Your task to perform on an android device: Clear all items from cart on walmart. Search for apple airpods on walmart, select the first entry, and add it to the cart. Image 0: 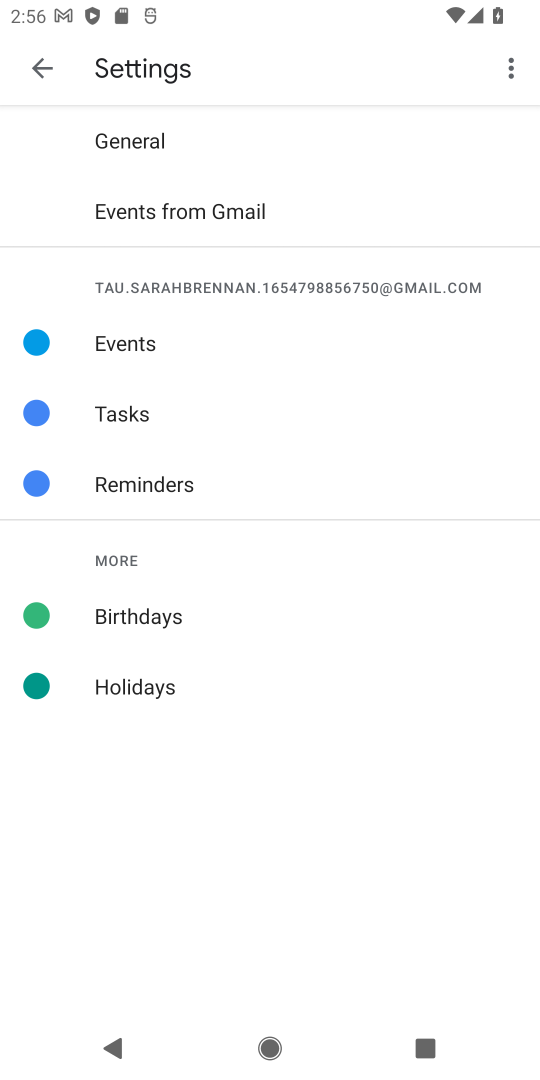
Step 0: press home button
Your task to perform on an android device: Clear all items from cart on walmart. Search for apple airpods on walmart, select the first entry, and add it to the cart. Image 1: 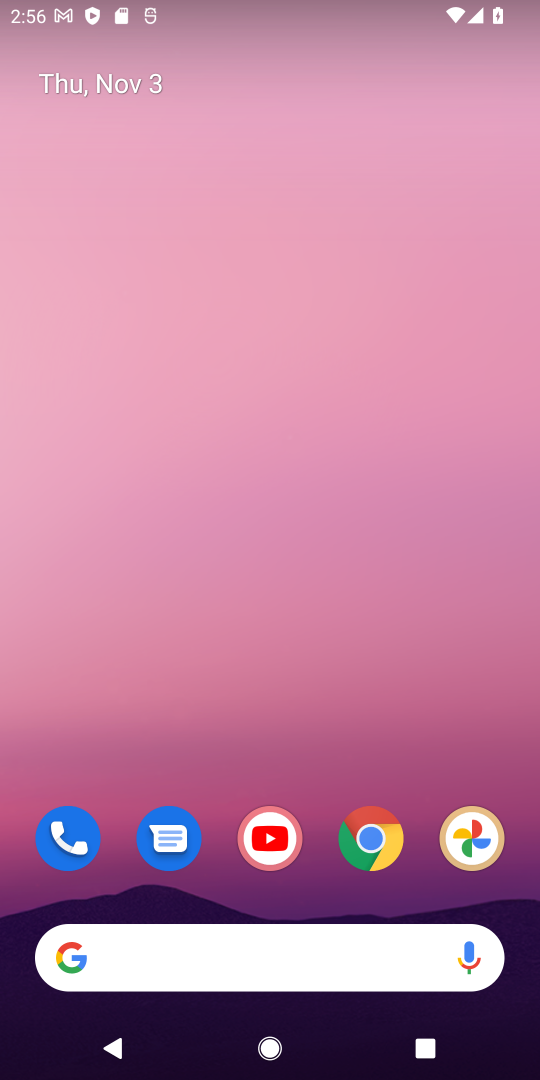
Step 1: drag from (342, 897) to (319, 184)
Your task to perform on an android device: Clear all items from cart on walmart. Search for apple airpods on walmart, select the first entry, and add it to the cart. Image 2: 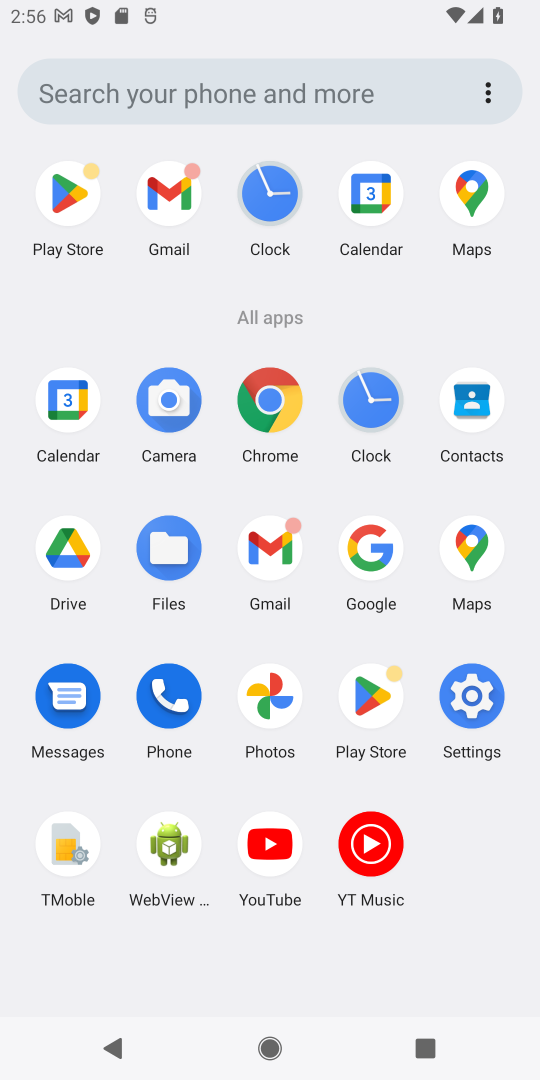
Step 2: click (273, 399)
Your task to perform on an android device: Clear all items from cart on walmart. Search for apple airpods on walmart, select the first entry, and add it to the cart. Image 3: 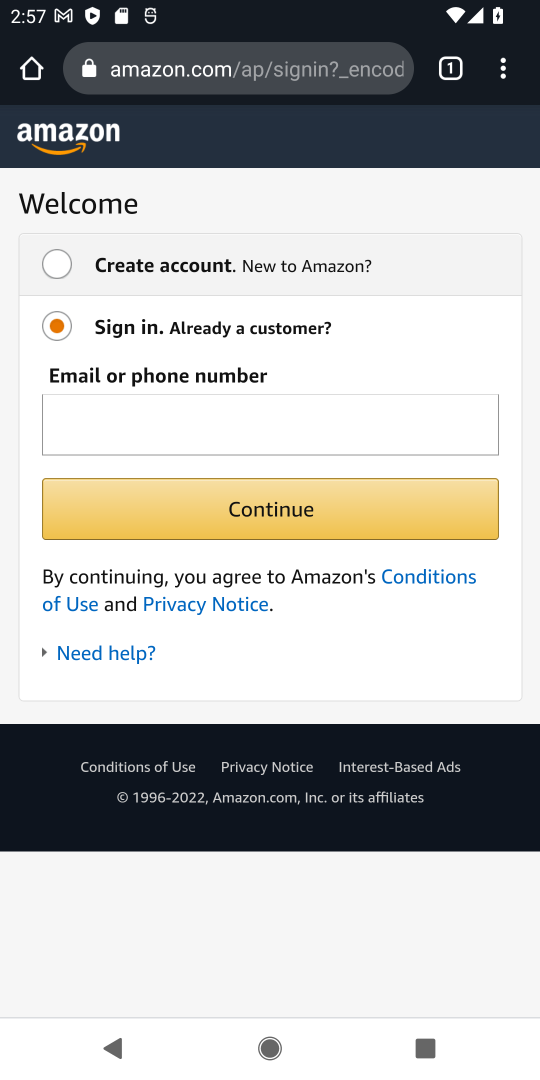
Step 3: click (293, 66)
Your task to perform on an android device: Clear all items from cart on walmart. Search for apple airpods on walmart, select the first entry, and add it to the cart. Image 4: 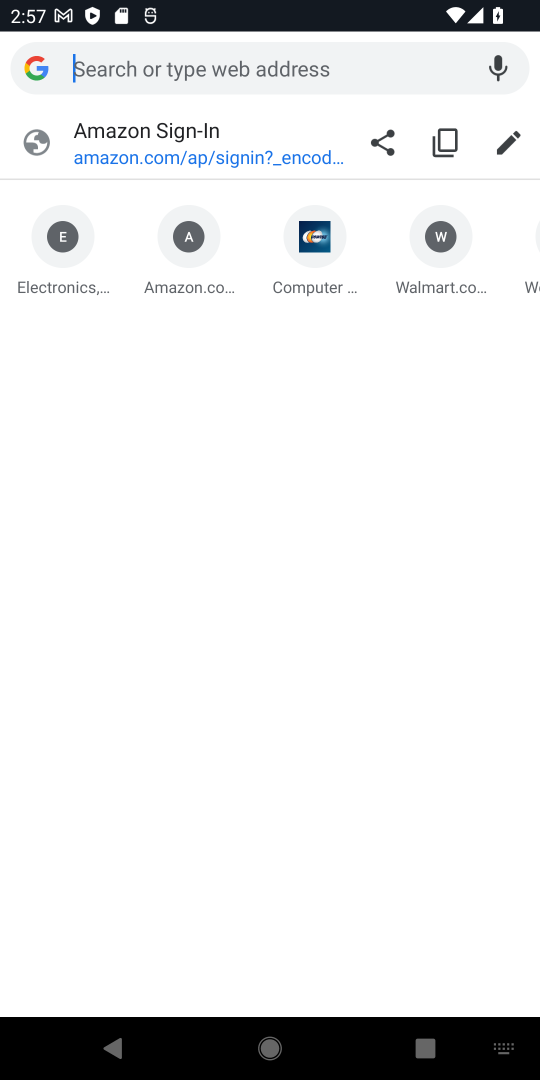
Step 4: type "walmart.com"
Your task to perform on an android device: Clear all items from cart on walmart. Search for apple airpods on walmart, select the first entry, and add it to the cart. Image 5: 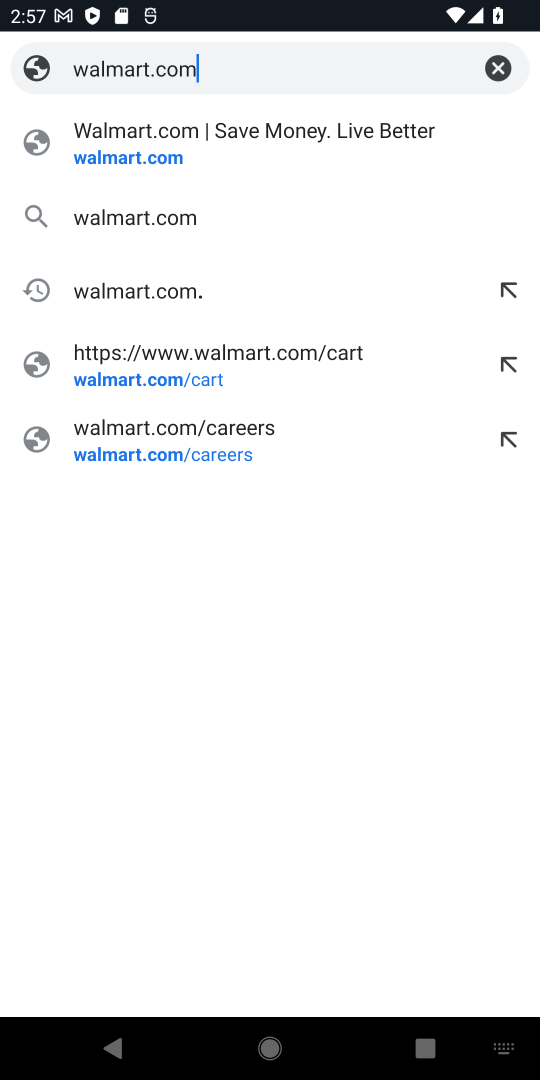
Step 5: press enter
Your task to perform on an android device: Clear all items from cart on walmart. Search for apple airpods on walmart, select the first entry, and add it to the cart. Image 6: 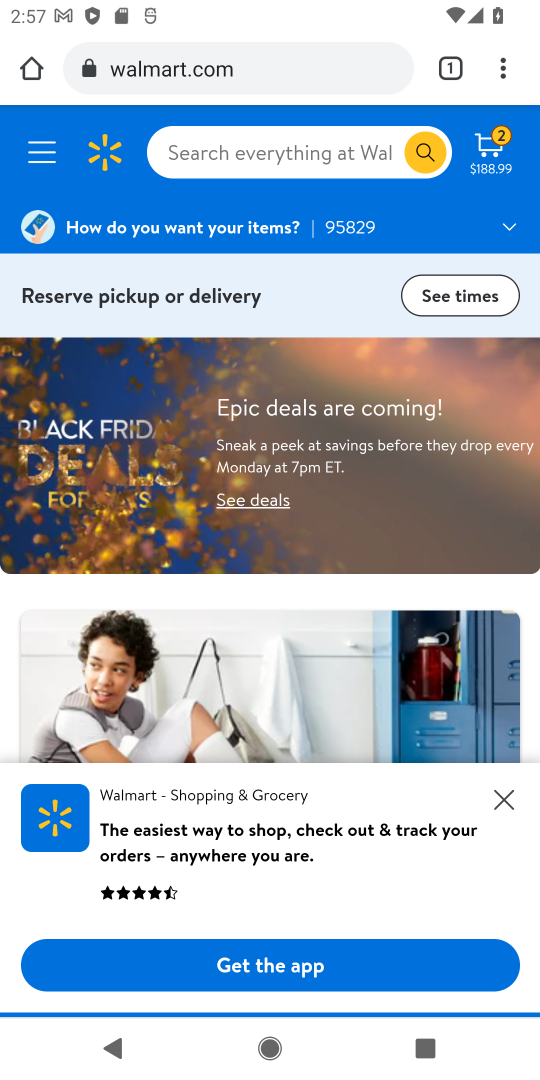
Step 6: click (500, 146)
Your task to perform on an android device: Clear all items from cart on walmart. Search for apple airpods on walmart, select the first entry, and add it to the cart. Image 7: 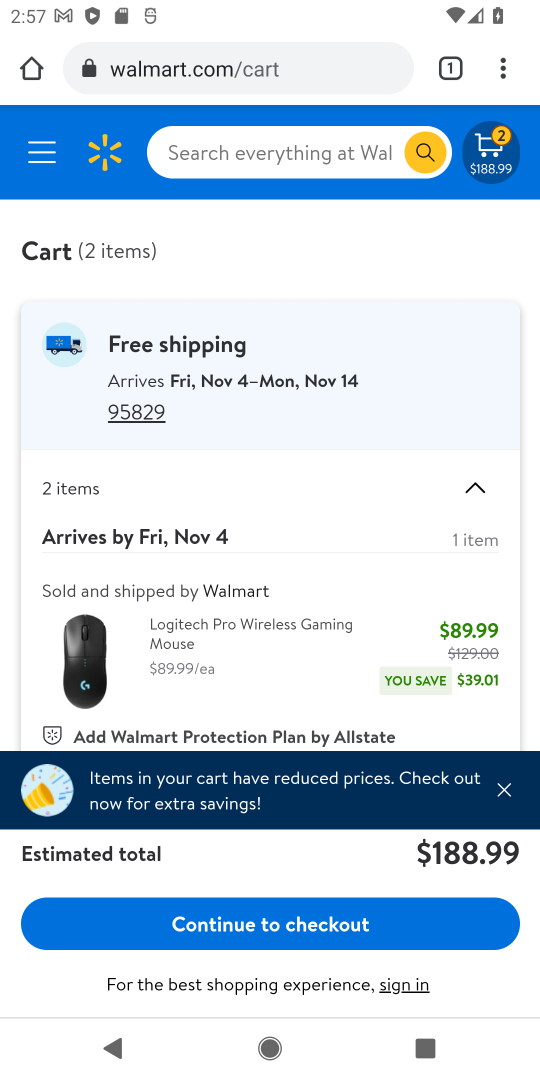
Step 7: drag from (384, 699) to (374, 278)
Your task to perform on an android device: Clear all items from cart on walmart. Search for apple airpods on walmart, select the first entry, and add it to the cart. Image 8: 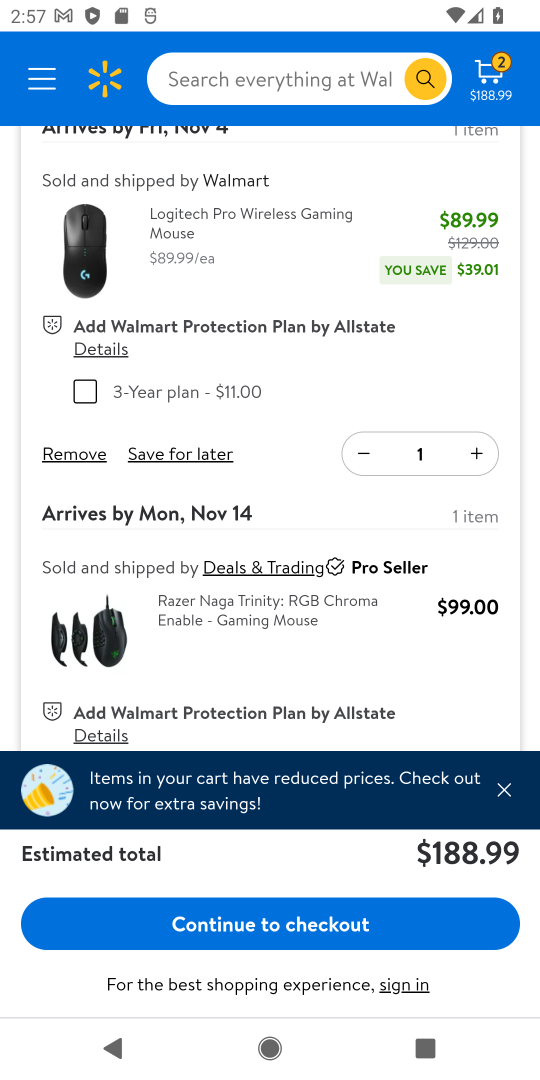
Step 8: click (77, 459)
Your task to perform on an android device: Clear all items from cart on walmart. Search for apple airpods on walmart, select the first entry, and add it to the cart. Image 9: 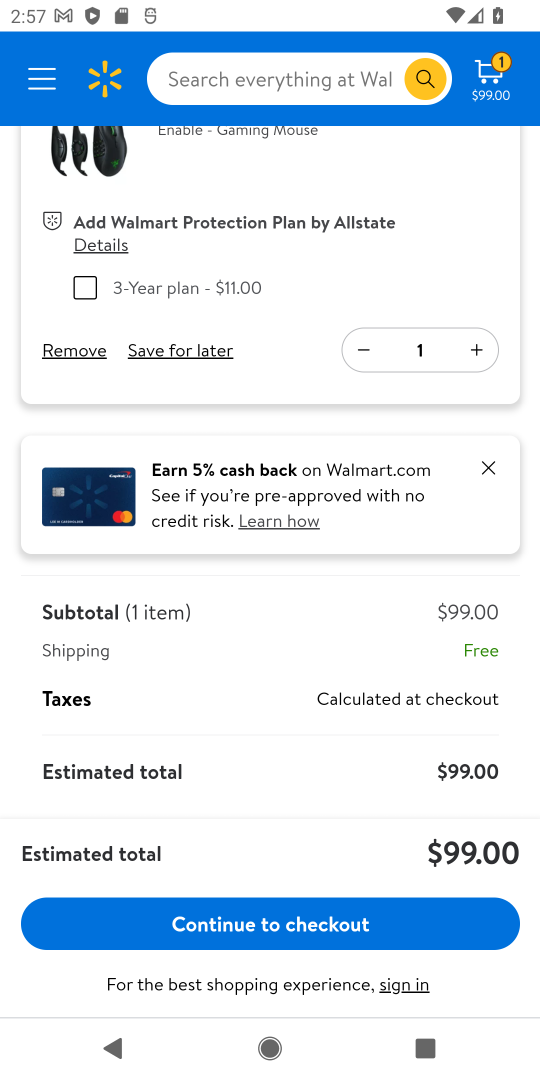
Step 9: click (48, 346)
Your task to perform on an android device: Clear all items from cart on walmart. Search for apple airpods on walmart, select the first entry, and add it to the cart. Image 10: 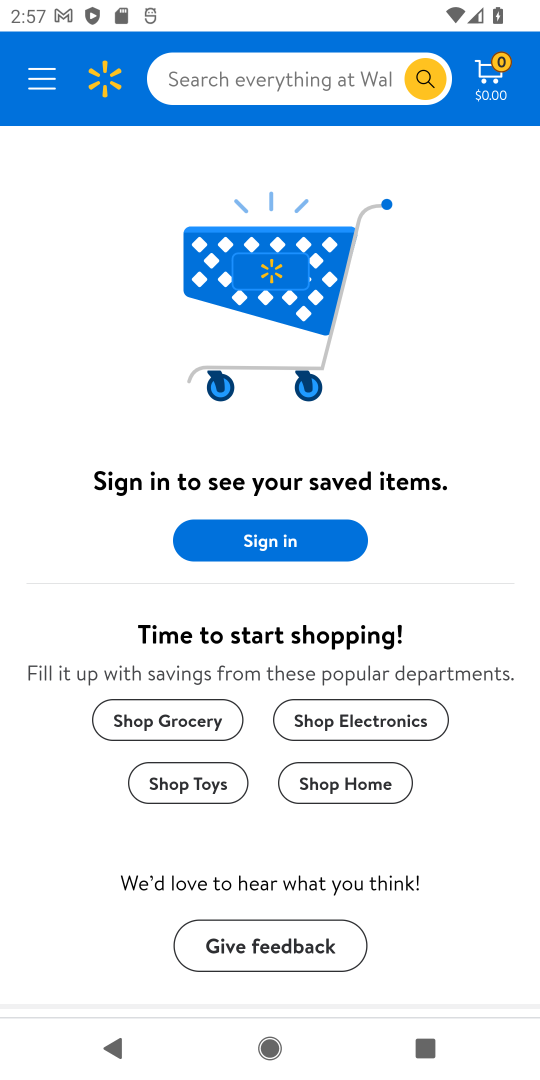
Step 10: click (304, 70)
Your task to perform on an android device: Clear all items from cart on walmart. Search for apple airpods on walmart, select the first entry, and add it to the cart. Image 11: 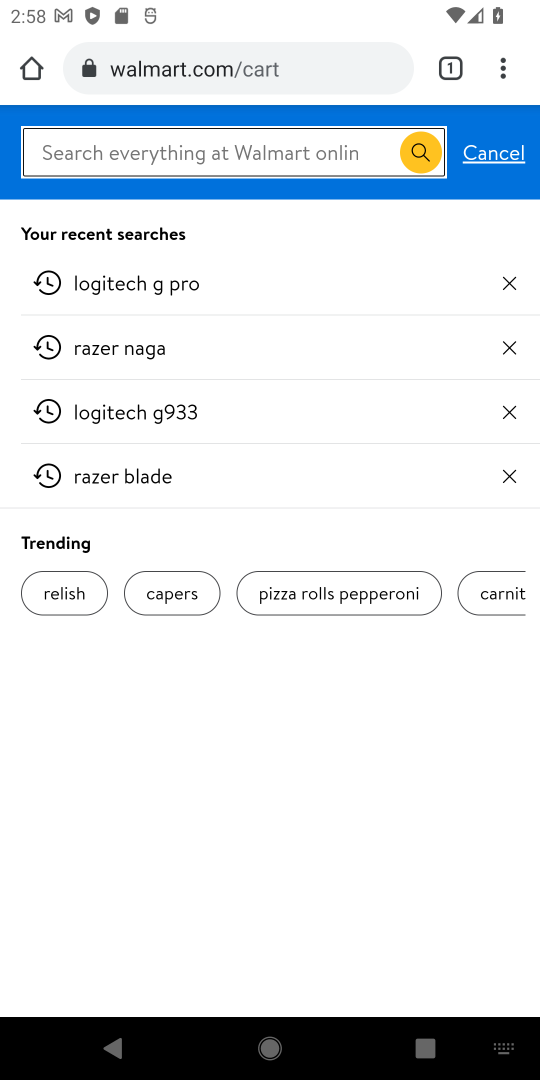
Step 11: type "apple airpods"
Your task to perform on an android device: Clear all items from cart on walmart. Search for apple airpods on walmart, select the first entry, and add it to the cart. Image 12: 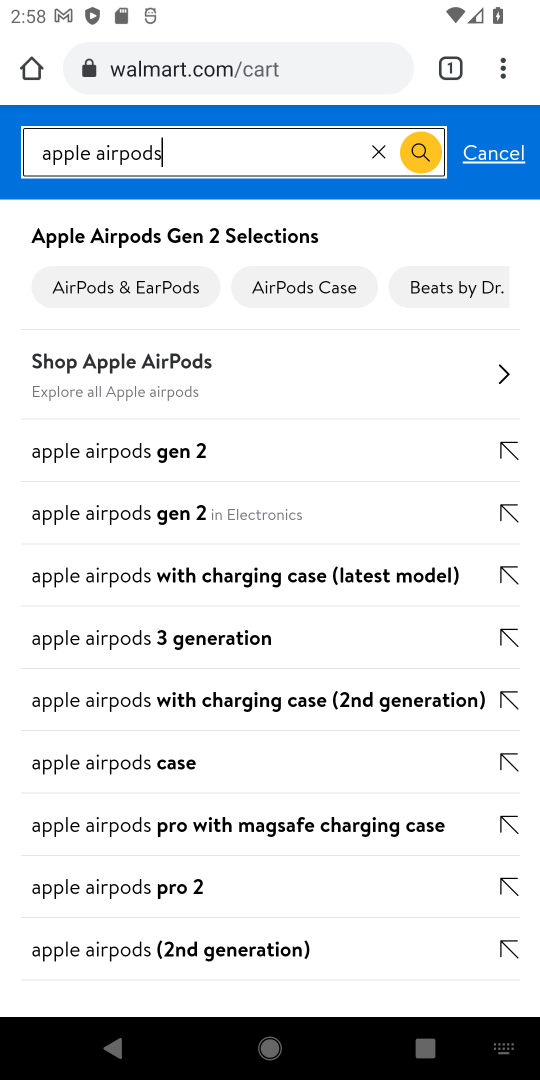
Step 12: press enter
Your task to perform on an android device: Clear all items from cart on walmart. Search for apple airpods on walmart, select the first entry, and add it to the cart. Image 13: 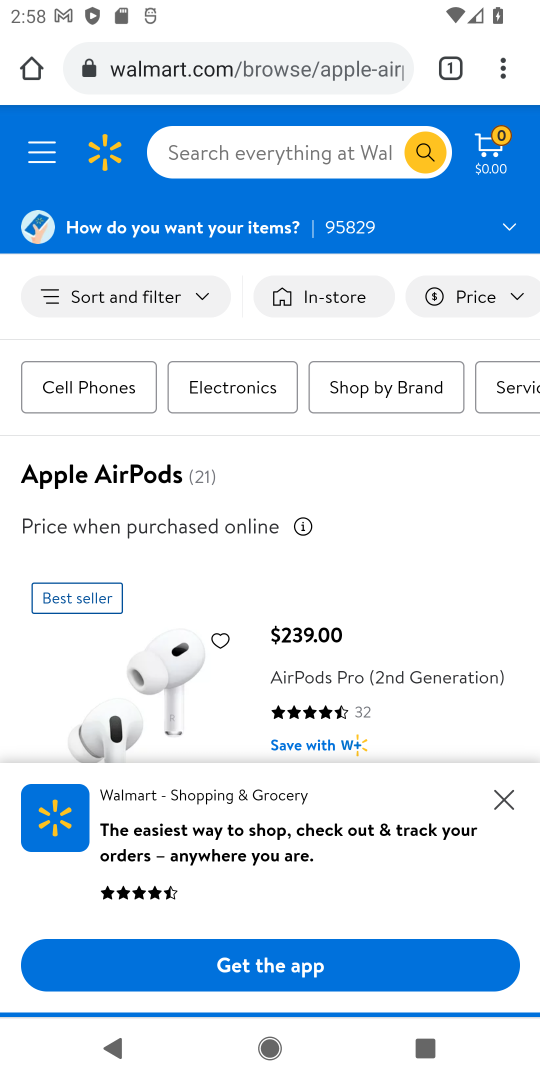
Step 13: drag from (285, 602) to (388, 202)
Your task to perform on an android device: Clear all items from cart on walmart. Search for apple airpods on walmart, select the first entry, and add it to the cart. Image 14: 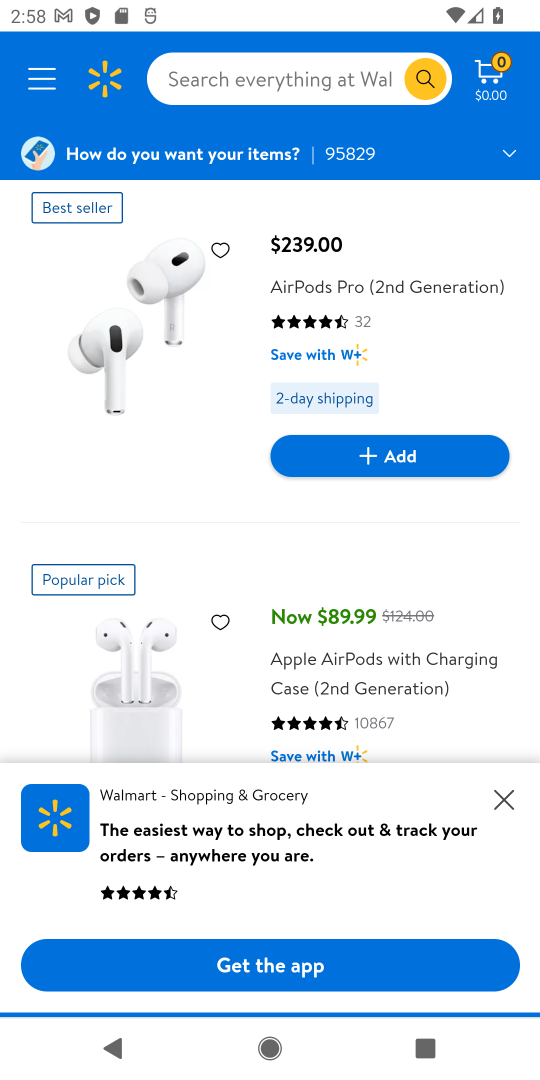
Step 14: drag from (360, 689) to (398, 443)
Your task to perform on an android device: Clear all items from cart on walmart. Search for apple airpods on walmart, select the first entry, and add it to the cart. Image 15: 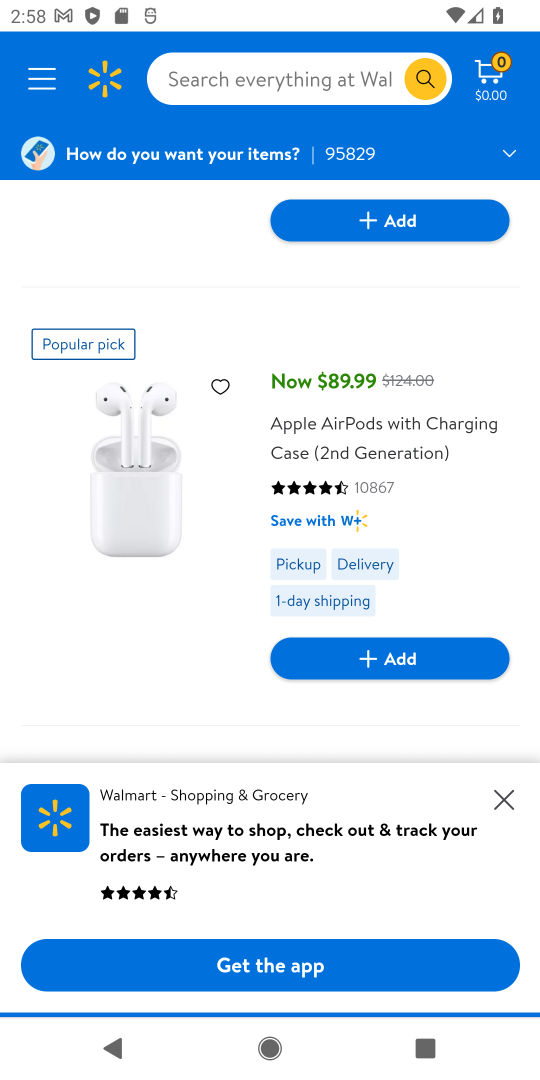
Step 15: drag from (369, 340) to (249, 428)
Your task to perform on an android device: Clear all items from cart on walmart. Search for apple airpods on walmart, select the first entry, and add it to the cart. Image 16: 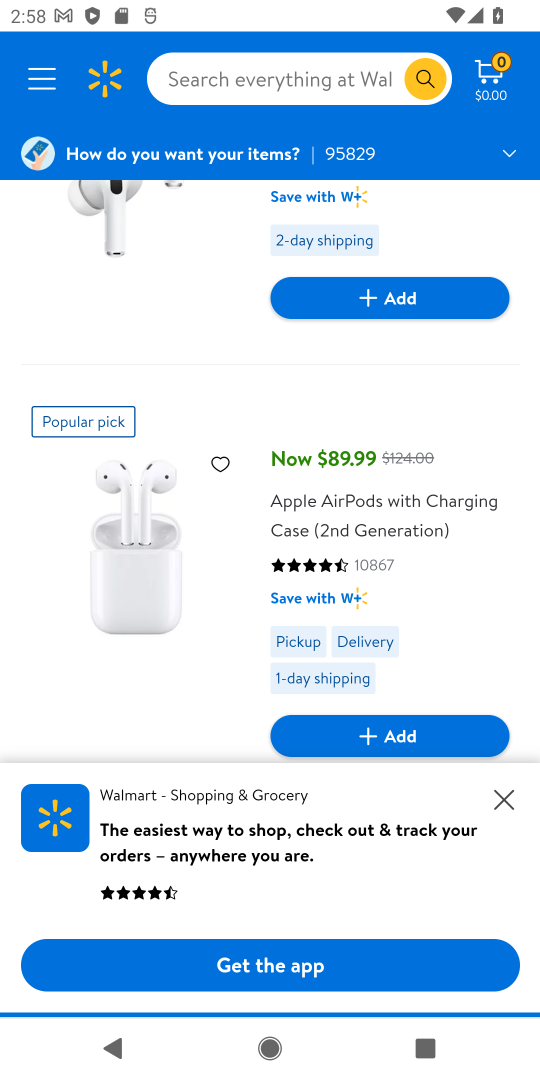
Step 16: click (398, 729)
Your task to perform on an android device: Clear all items from cart on walmart. Search for apple airpods on walmart, select the first entry, and add it to the cart. Image 17: 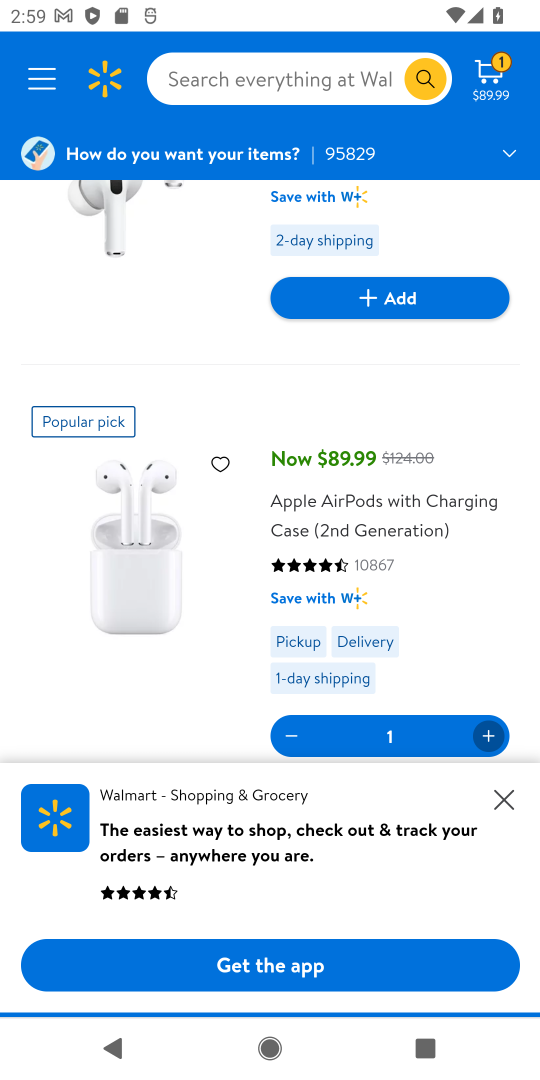
Step 17: task complete